Your task to perform on an android device: all mails in gmail Image 0: 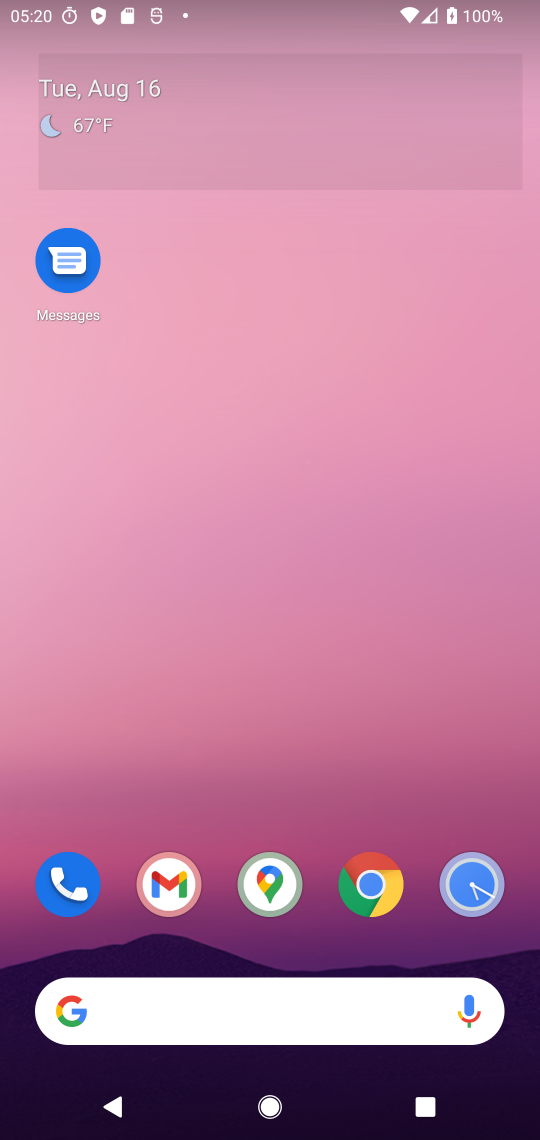
Step 0: click (164, 895)
Your task to perform on an android device: all mails in gmail Image 1: 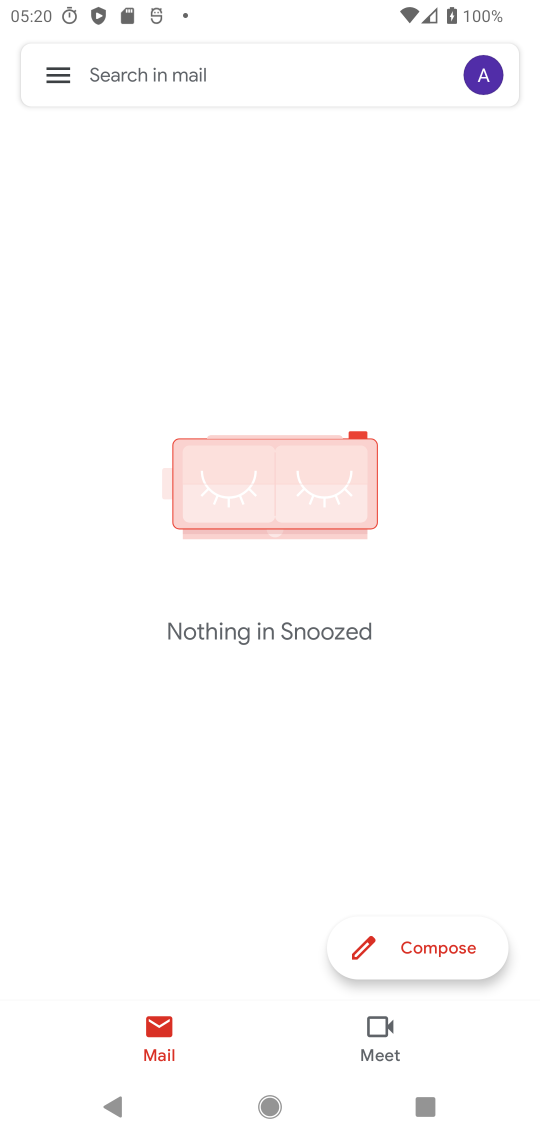
Step 1: click (53, 73)
Your task to perform on an android device: all mails in gmail Image 2: 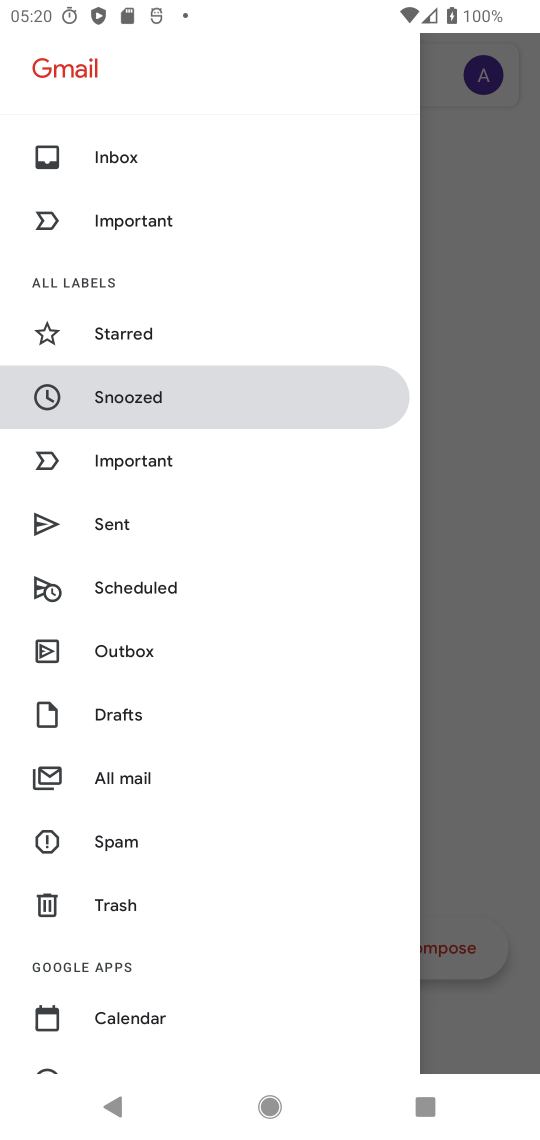
Step 2: click (156, 780)
Your task to perform on an android device: all mails in gmail Image 3: 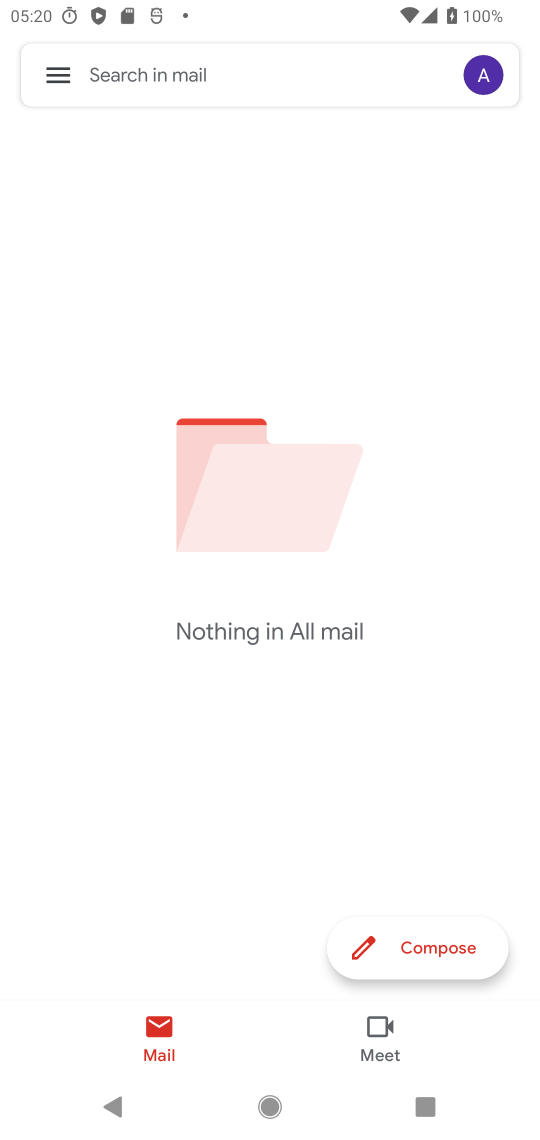
Step 3: task complete